Your task to perform on an android device: Go to Google maps Image 0: 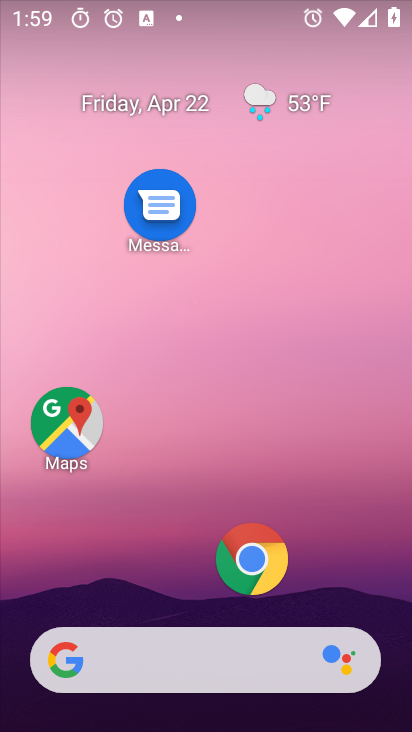
Step 0: click (70, 432)
Your task to perform on an android device: Go to Google maps Image 1: 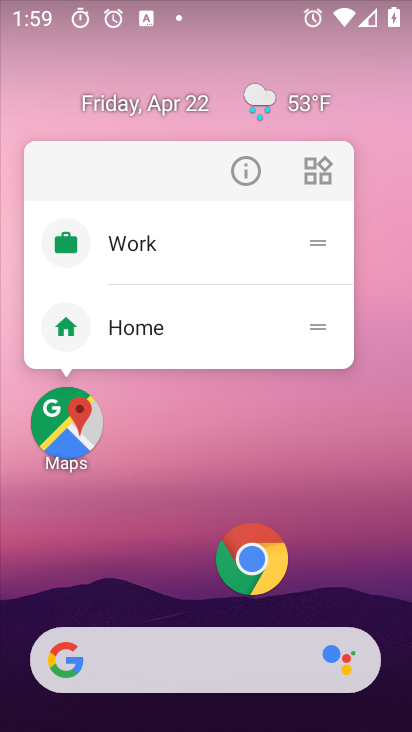
Step 1: click (70, 432)
Your task to perform on an android device: Go to Google maps Image 2: 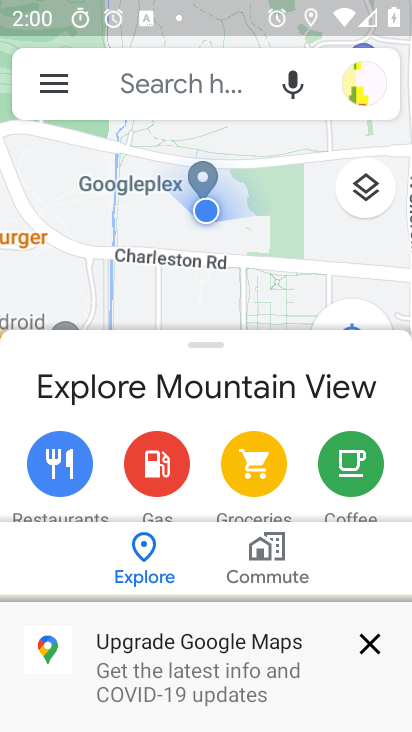
Step 2: click (365, 634)
Your task to perform on an android device: Go to Google maps Image 3: 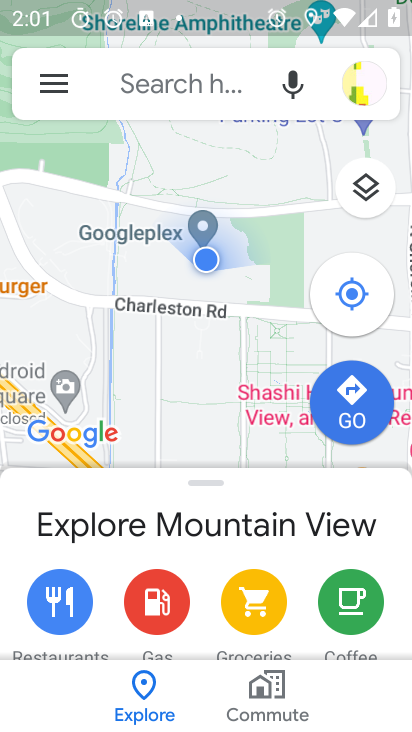
Step 3: task complete